Your task to perform on an android device: change notification settings in the gmail app Image 0: 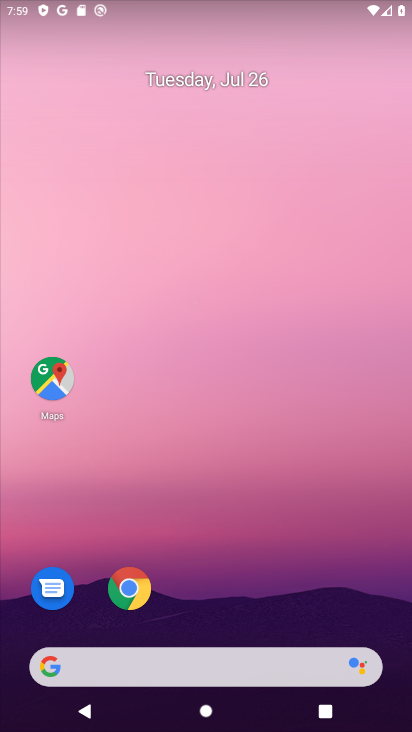
Step 0: press home button
Your task to perform on an android device: change notification settings in the gmail app Image 1: 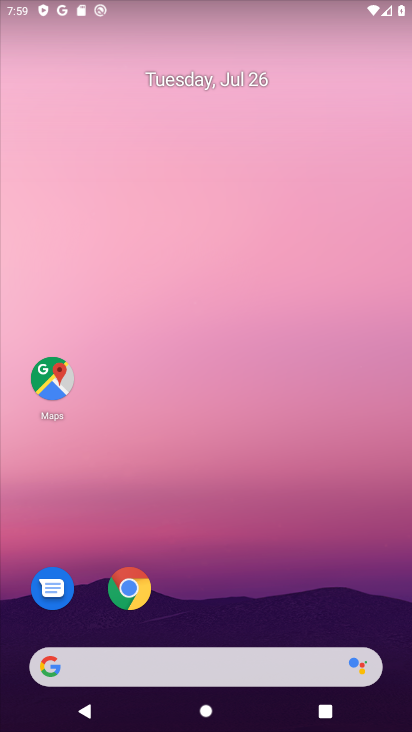
Step 1: drag from (249, 606) to (200, 93)
Your task to perform on an android device: change notification settings in the gmail app Image 2: 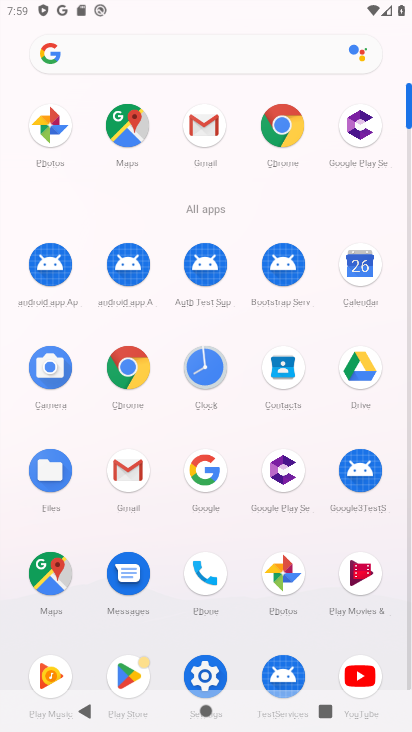
Step 2: click (129, 468)
Your task to perform on an android device: change notification settings in the gmail app Image 3: 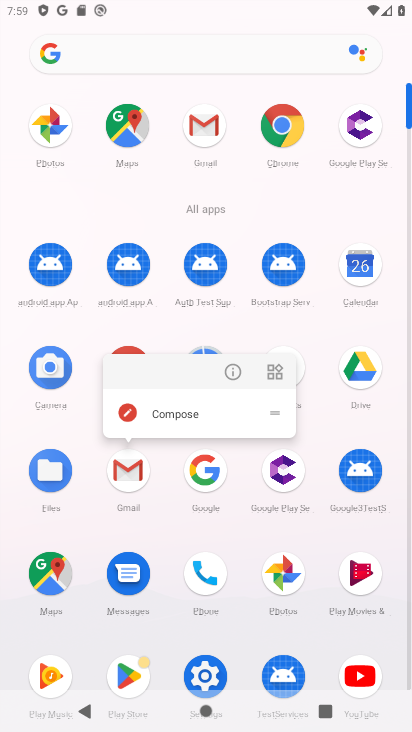
Step 3: click (129, 468)
Your task to perform on an android device: change notification settings in the gmail app Image 4: 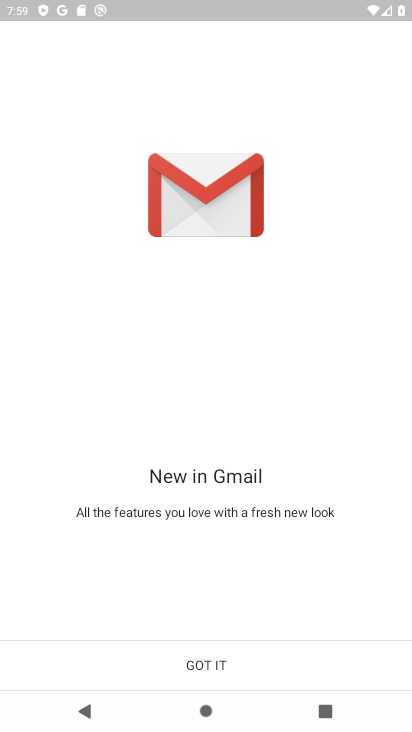
Step 4: click (189, 665)
Your task to perform on an android device: change notification settings in the gmail app Image 5: 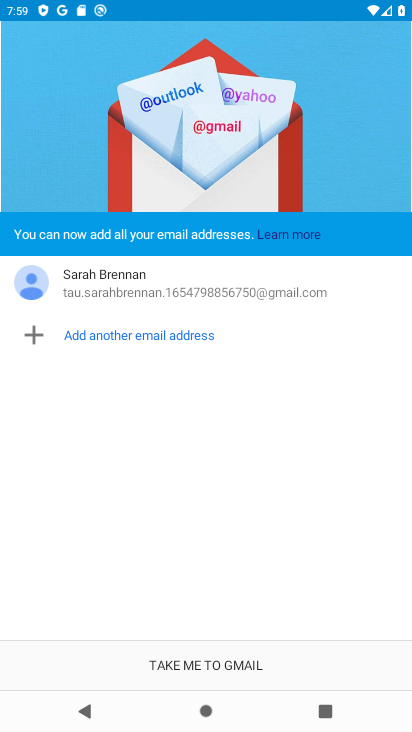
Step 5: click (193, 667)
Your task to perform on an android device: change notification settings in the gmail app Image 6: 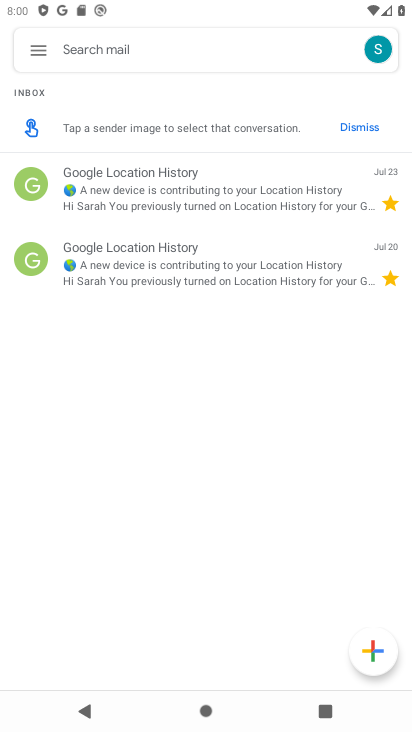
Step 6: drag from (40, 49) to (173, 50)
Your task to perform on an android device: change notification settings in the gmail app Image 7: 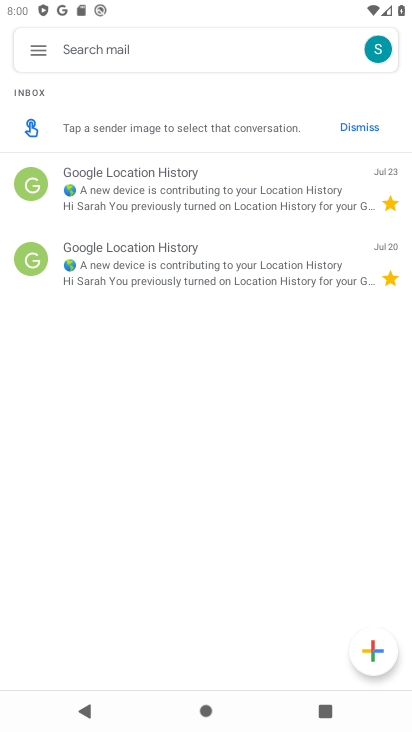
Step 7: click (25, 49)
Your task to perform on an android device: change notification settings in the gmail app Image 8: 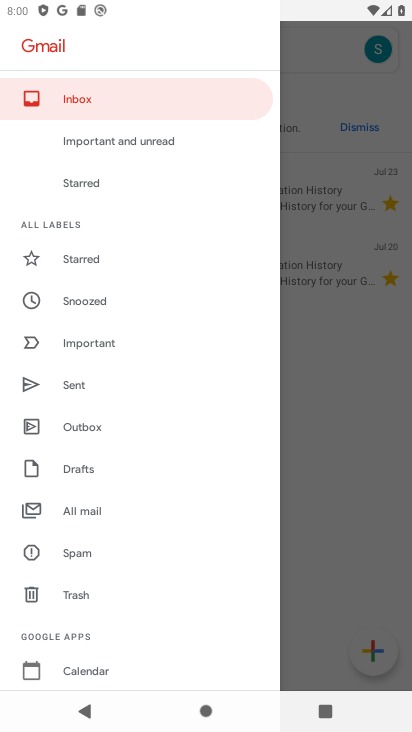
Step 8: drag from (121, 631) to (130, 274)
Your task to perform on an android device: change notification settings in the gmail app Image 9: 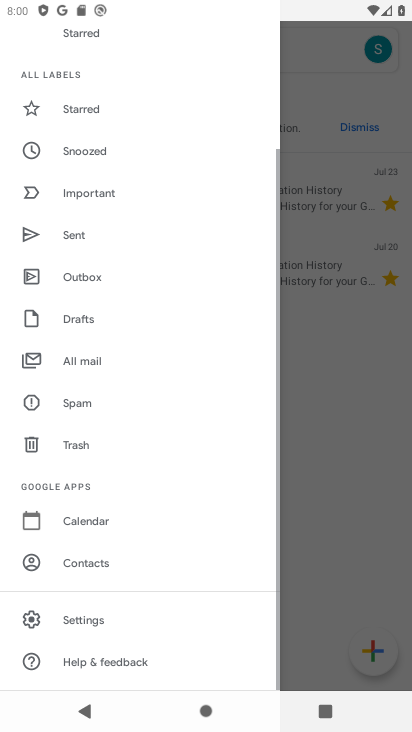
Step 9: click (90, 616)
Your task to perform on an android device: change notification settings in the gmail app Image 10: 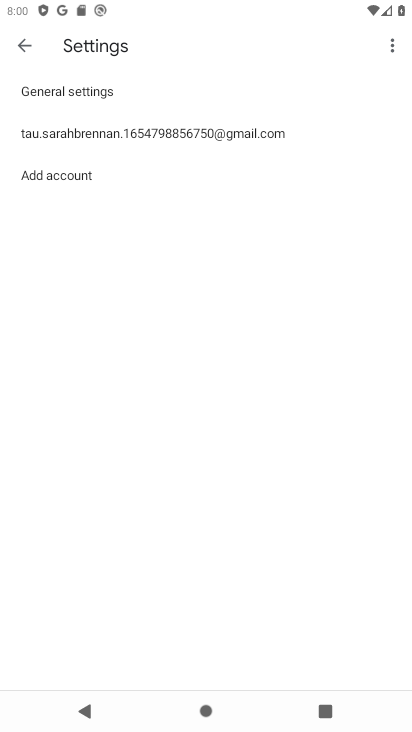
Step 10: click (63, 140)
Your task to perform on an android device: change notification settings in the gmail app Image 11: 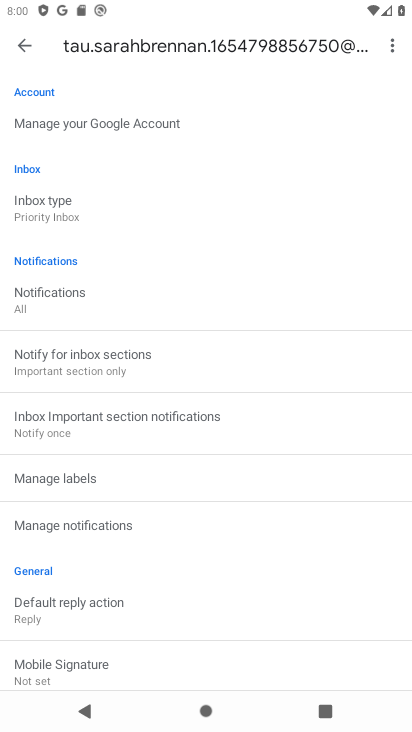
Step 11: click (44, 532)
Your task to perform on an android device: change notification settings in the gmail app Image 12: 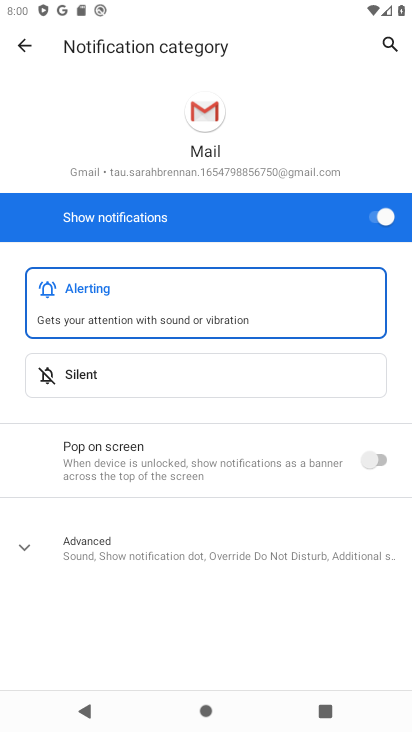
Step 12: click (374, 216)
Your task to perform on an android device: change notification settings in the gmail app Image 13: 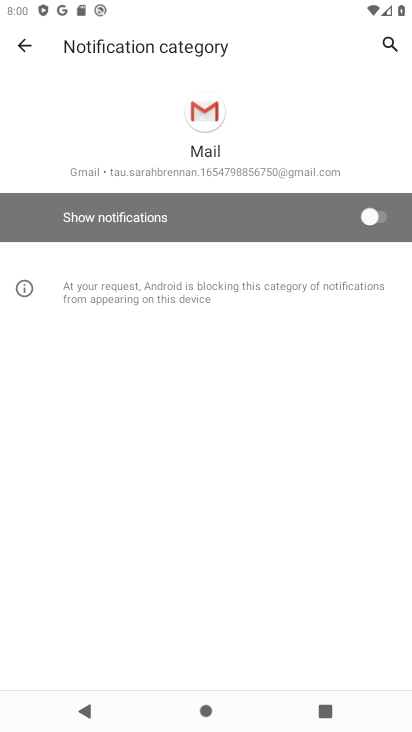
Step 13: task complete